Your task to perform on an android device: toggle data saver in the chrome app Image 0: 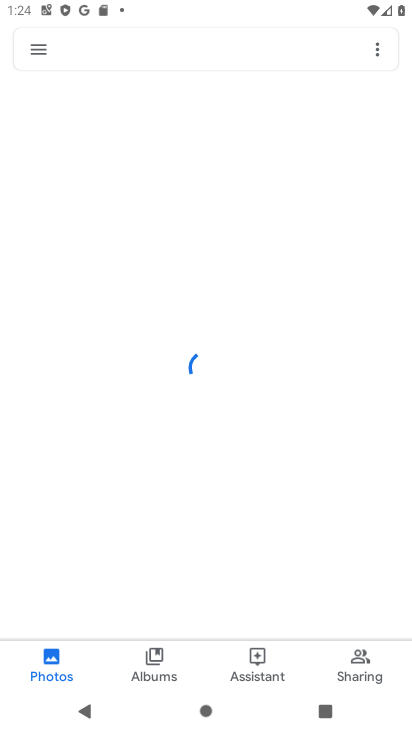
Step 0: press home button
Your task to perform on an android device: toggle data saver in the chrome app Image 1: 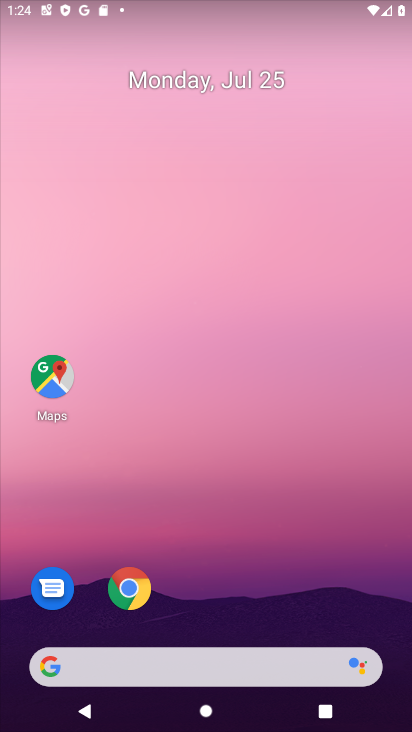
Step 1: click (133, 586)
Your task to perform on an android device: toggle data saver in the chrome app Image 2: 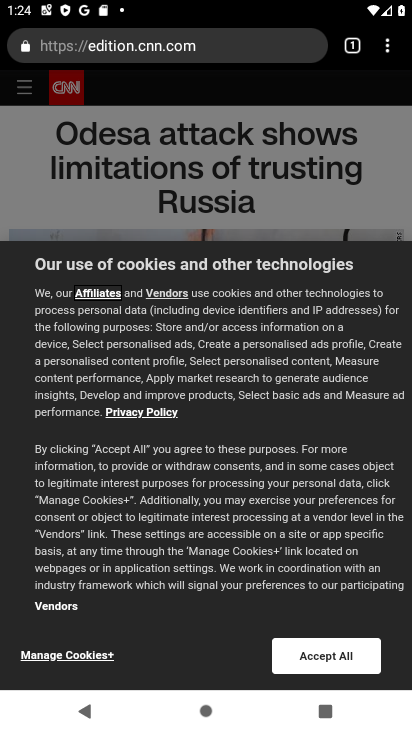
Step 2: click (386, 48)
Your task to perform on an android device: toggle data saver in the chrome app Image 3: 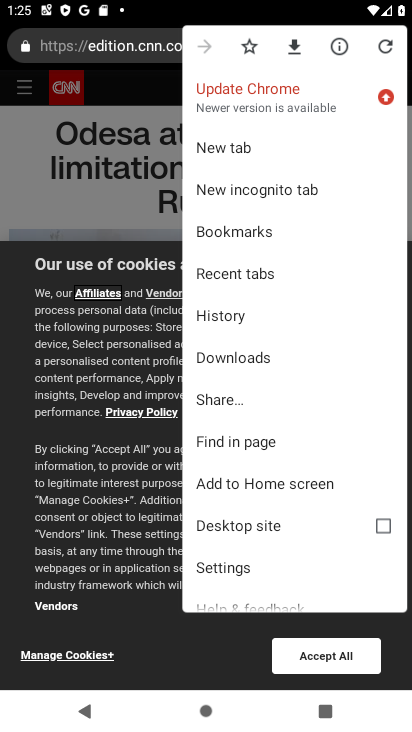
Step 3: click (218, 568)
Your task to perform on an android device: toggle data saver in the chrome app Image 4: 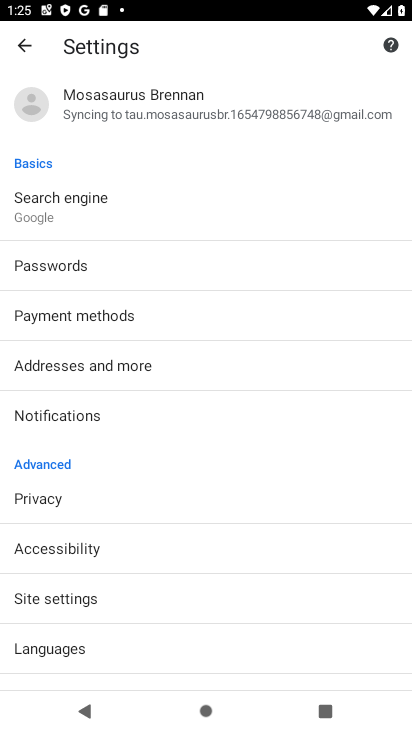
Step 4: drag from (88, 494) to (76, 402)
Your task to perform on an android device: toggle data saver in the chrome app Image 5: 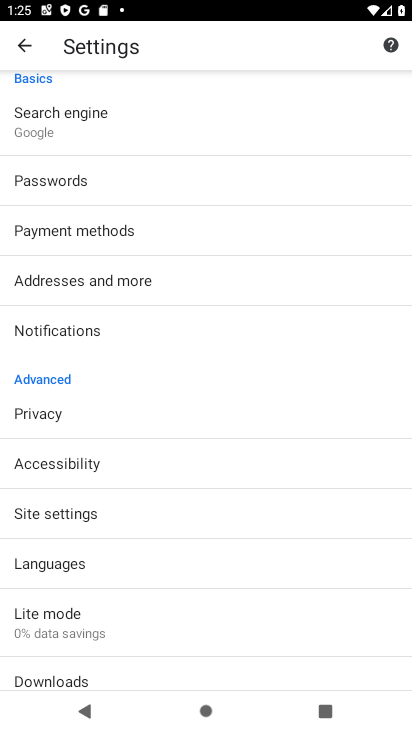
Step 5: click (50, 636)
Your task to perform on an android device: toggle data saver in the chrome app Image 6: 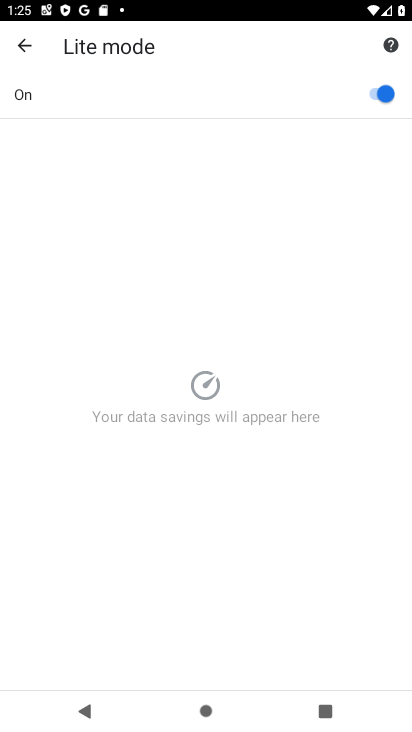
Step 6: click (373, 88)
Your task to perform on an android device: toggle data saver in the chrome app Image 7: 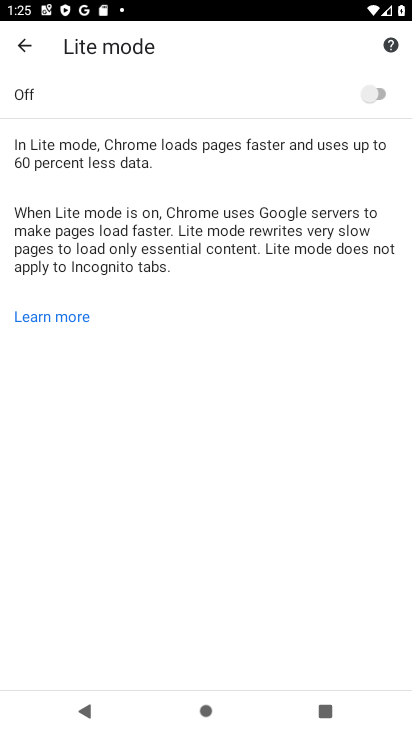
Step 7: task complete